Your task to perform on an android device: star an email in the gmail app Image 0: 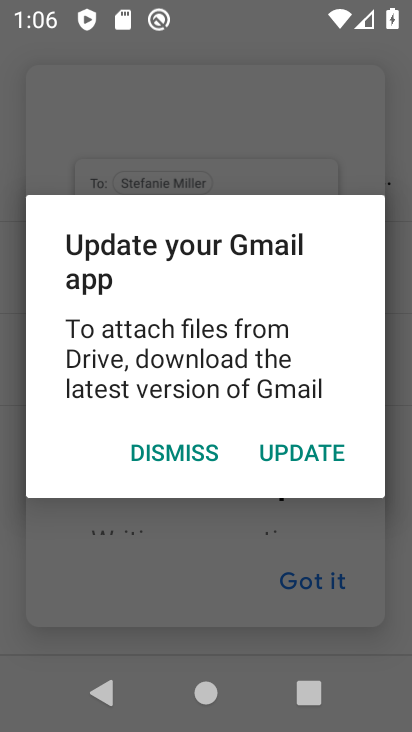
Step 0: press home button
Your task to perform on an android device: star an email in the gmail app Image 1: 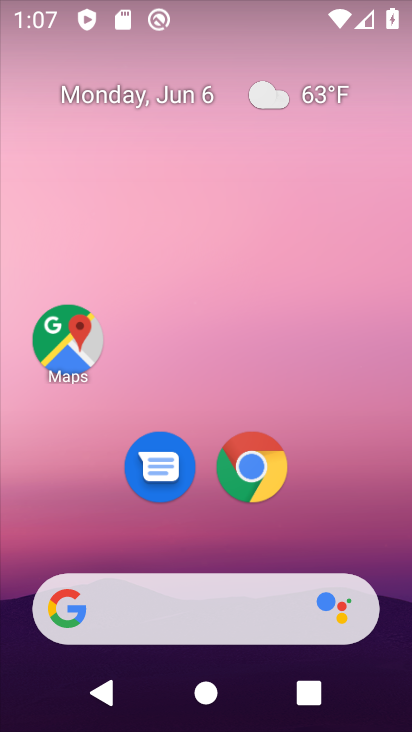
Step 1: drag from (386, 617) to (324, 66)
Your task to perform on an android device: star an email in the gmail app Image 2: 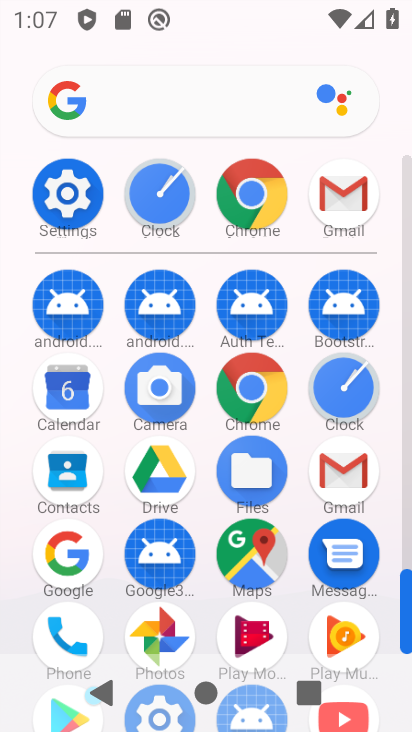
Step 2: click (333, 224)
Your task to perform on an android device: star an email in the gmail app Image 3: 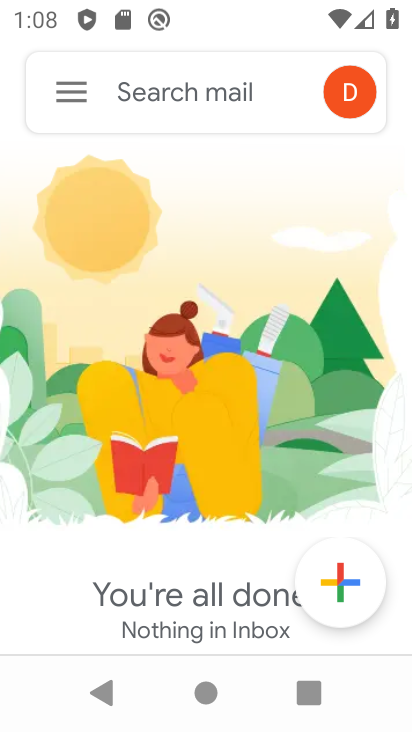
Step 3: task complete